Your task to perform on an android device: turn off notifications settings in the gmail app Image 0: 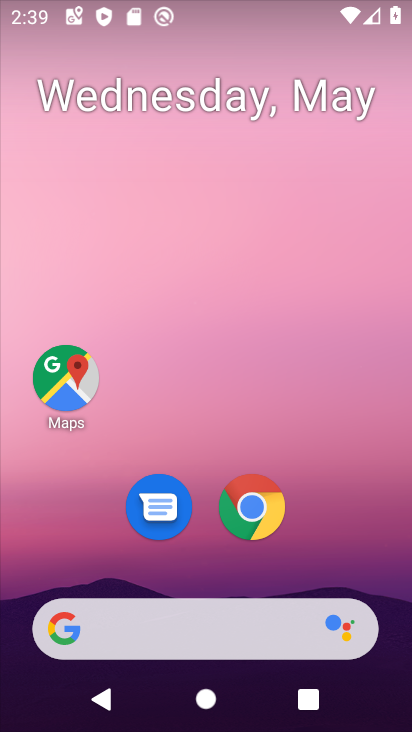
Step 0: drag from (238, 479) to (251, 42)
Your task to perform on an android device: turn off notifications settings in the gmail app Image 1: 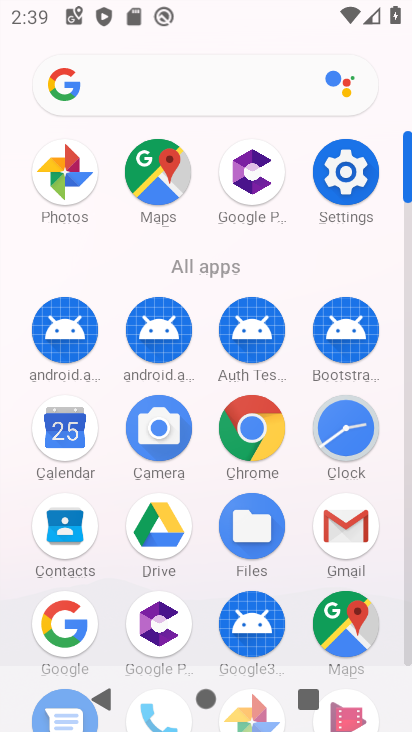
Step 1: click (356, 527)
Your task to perform on an android device: turn off notifications settings in the gmail app Image 2: 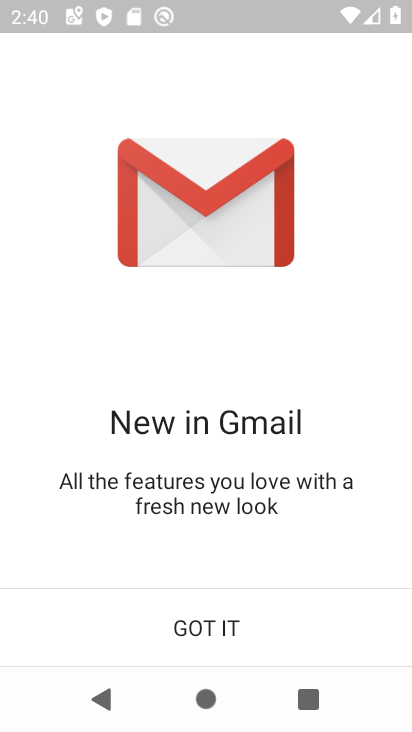
Step 2: click (257, 640)
Your task to perform on an android device: turn off notifications settings in the gmail app Image 3: 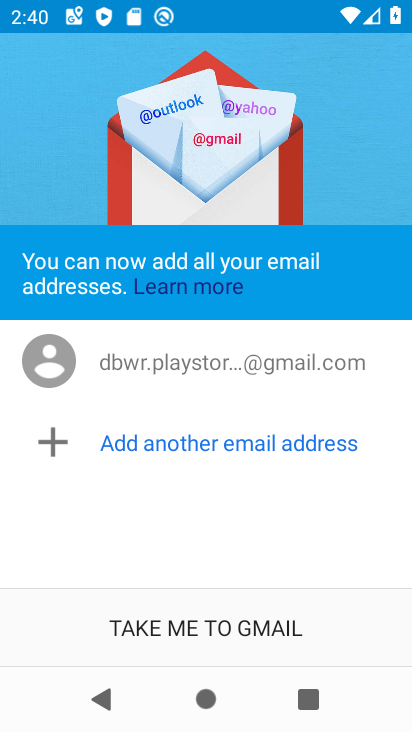
Step 3: click (255, 624)
Your task to perform on an android device: turn off notifications settings in the gmail app Image 4: 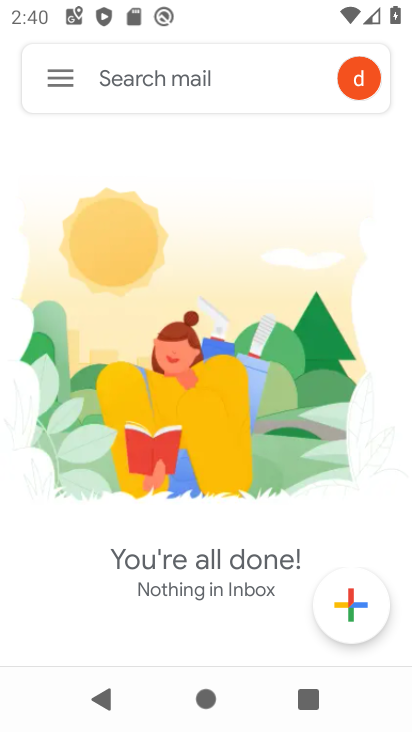
Step 4: click (57, 83)
Your task to perform on an android device: turn off notifications settings in the gmail app Image 5: 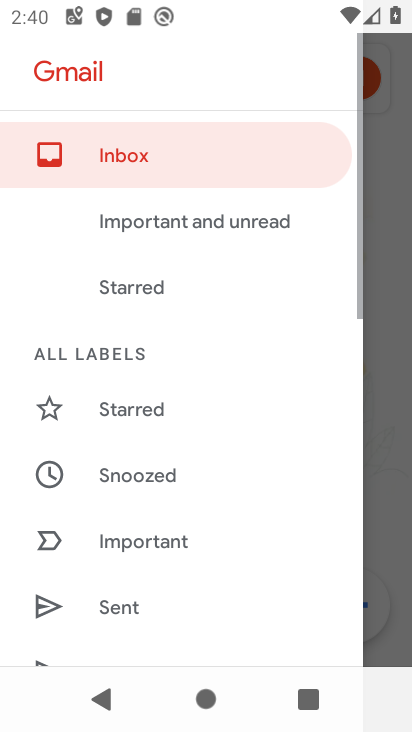
Step 5: drag from (139, 500) to (224, 0)
Your task to perform on an android device: turn off notifications settings in the gmail app Image 6: 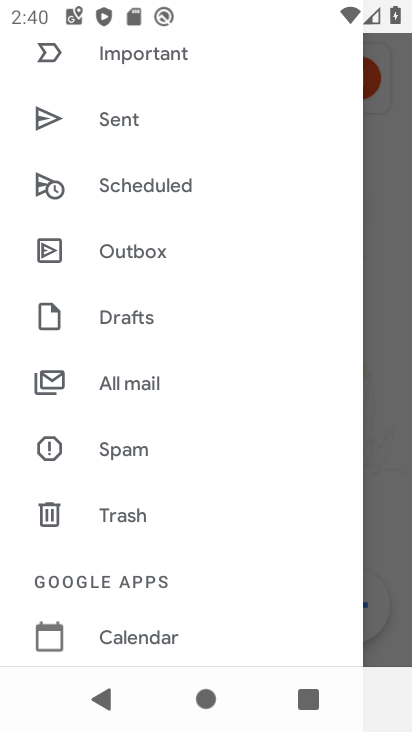
Step 6: drag from (165, 559) to (255, 9)
Your task to perform on an android device: turn off notifications settings in the gmail app Image 7: 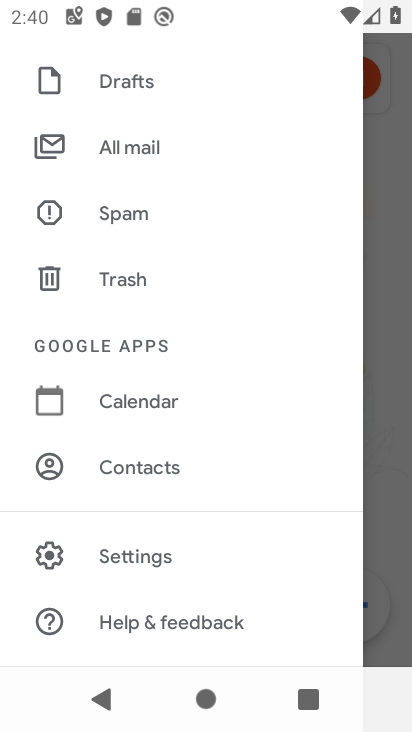
Step 7: click (160, 558)
Your task to perform on an android device: turn off notifications settings in the gmail app Image 8: 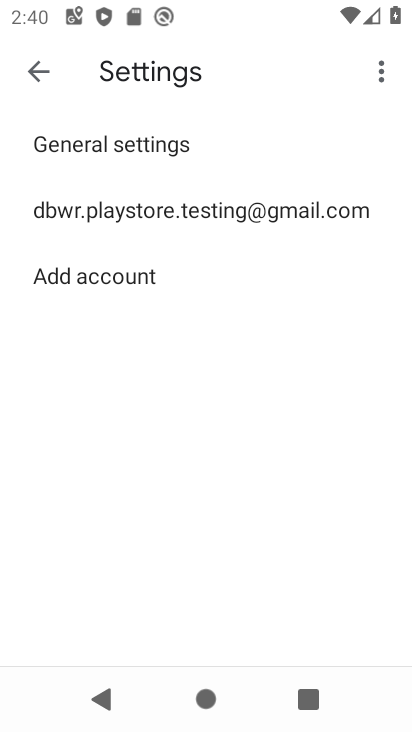
Step 8: click (155, 147)
Your task to perform on an android device: turn off notifications settings in the gmail app Image 9: 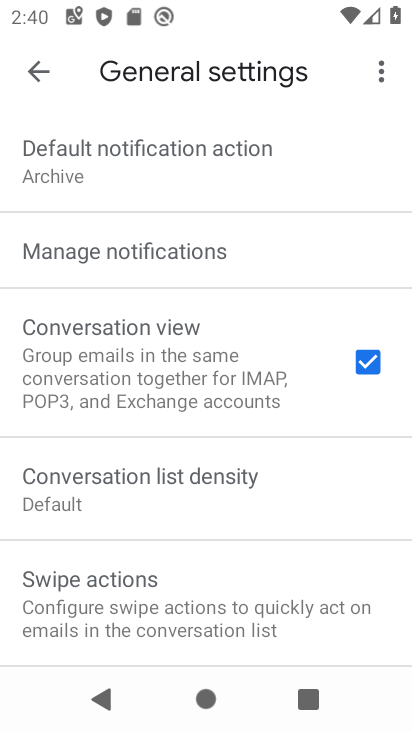
Step 9: click (154, 248)
Your task to perform on an android device: turn off notifications settings in the gmail app Image 10: 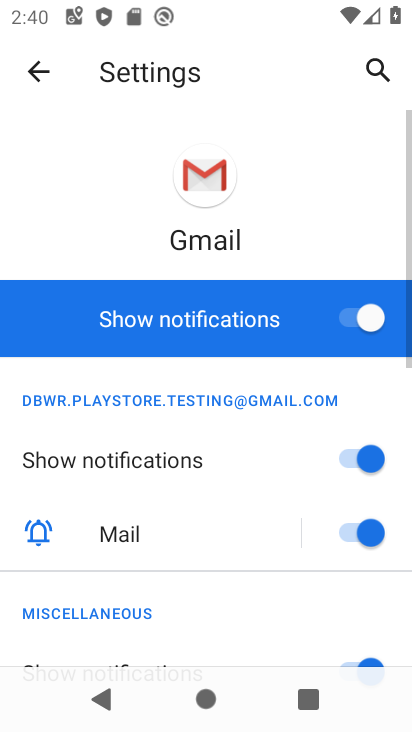
Step 10: click (342, 319)
Your task to perform on an android device: turn off notifications settings in the gmail app Image 11: 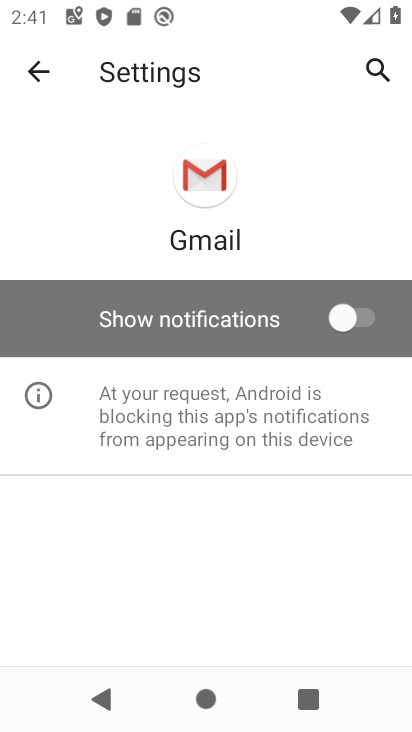
Step 11: task complete